Your task to perform on an android device: manage bookmarks in the chrome app Image 0: 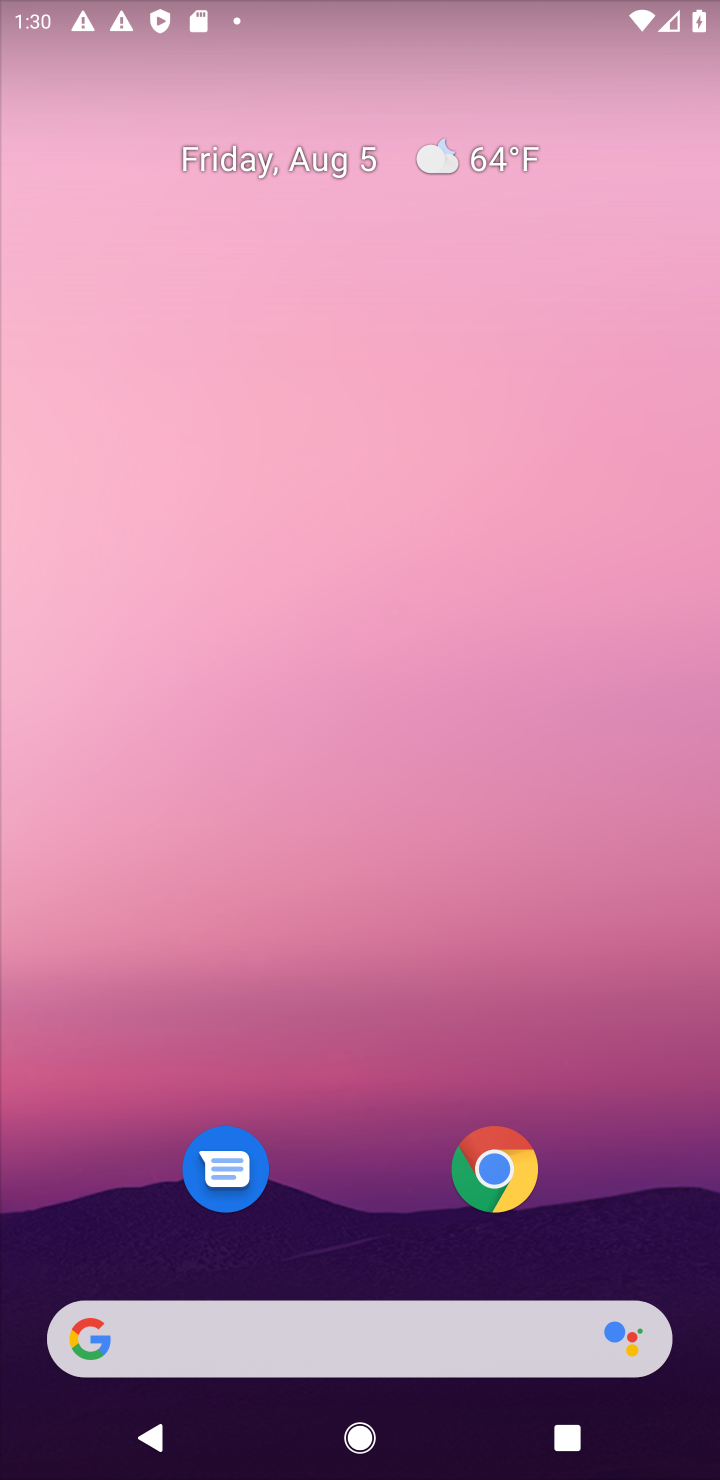
Step 0: click (518, 1191)
Your task to perform on an android device: manage bookmarks in the chrome app Image 1: 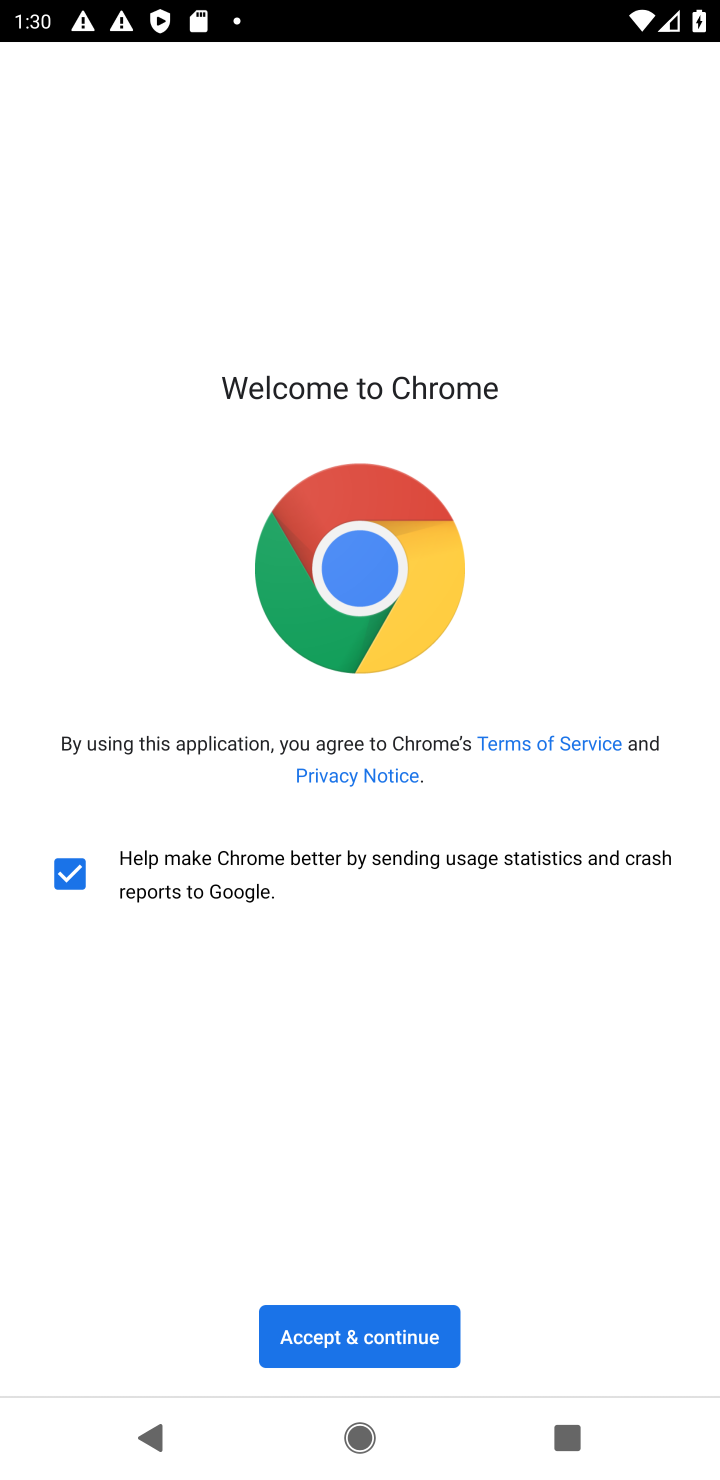
Step 1: click (370, 1323)
Your task to perform on an android device: manage bookmarks in the chrome app Image 2: 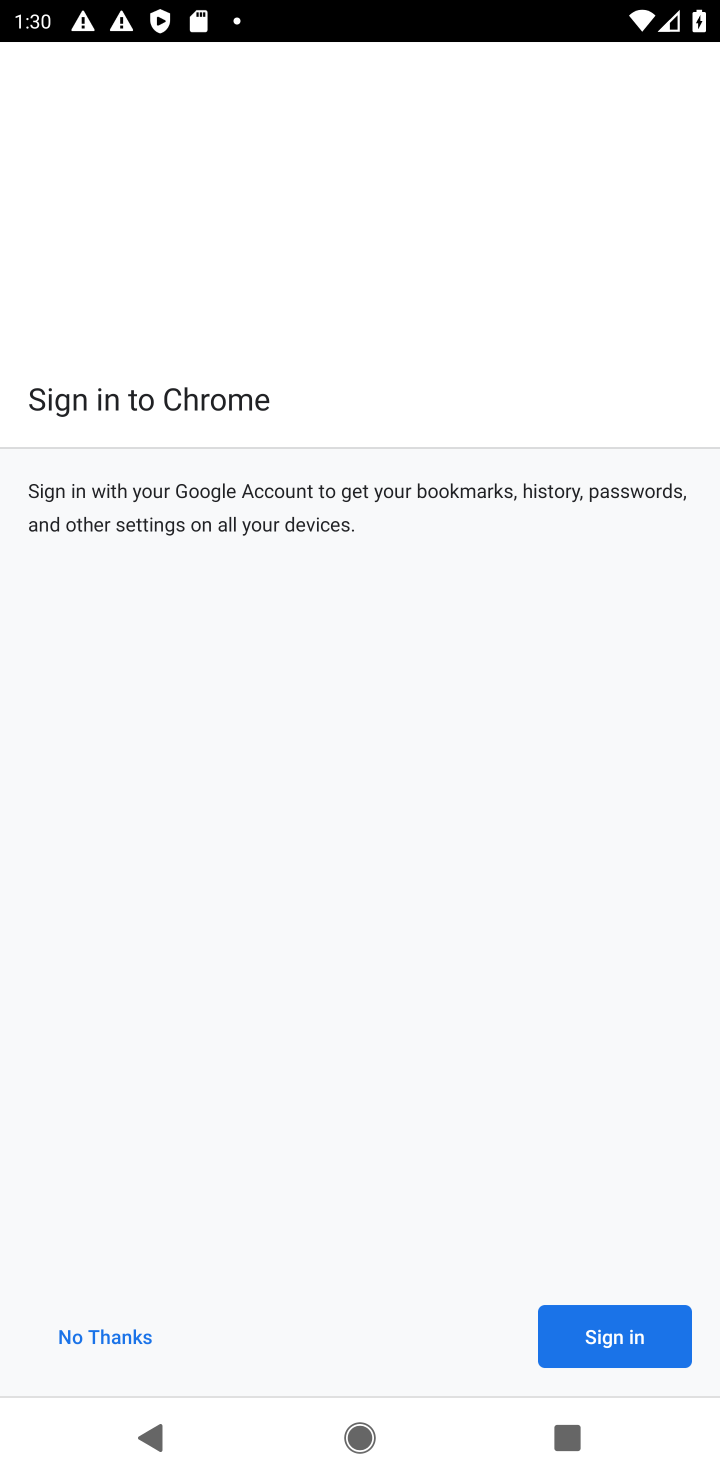
Step 2: click (633, 1300)
Your task to perform on an android device: manage bookmarks in the chrome app Image 3: 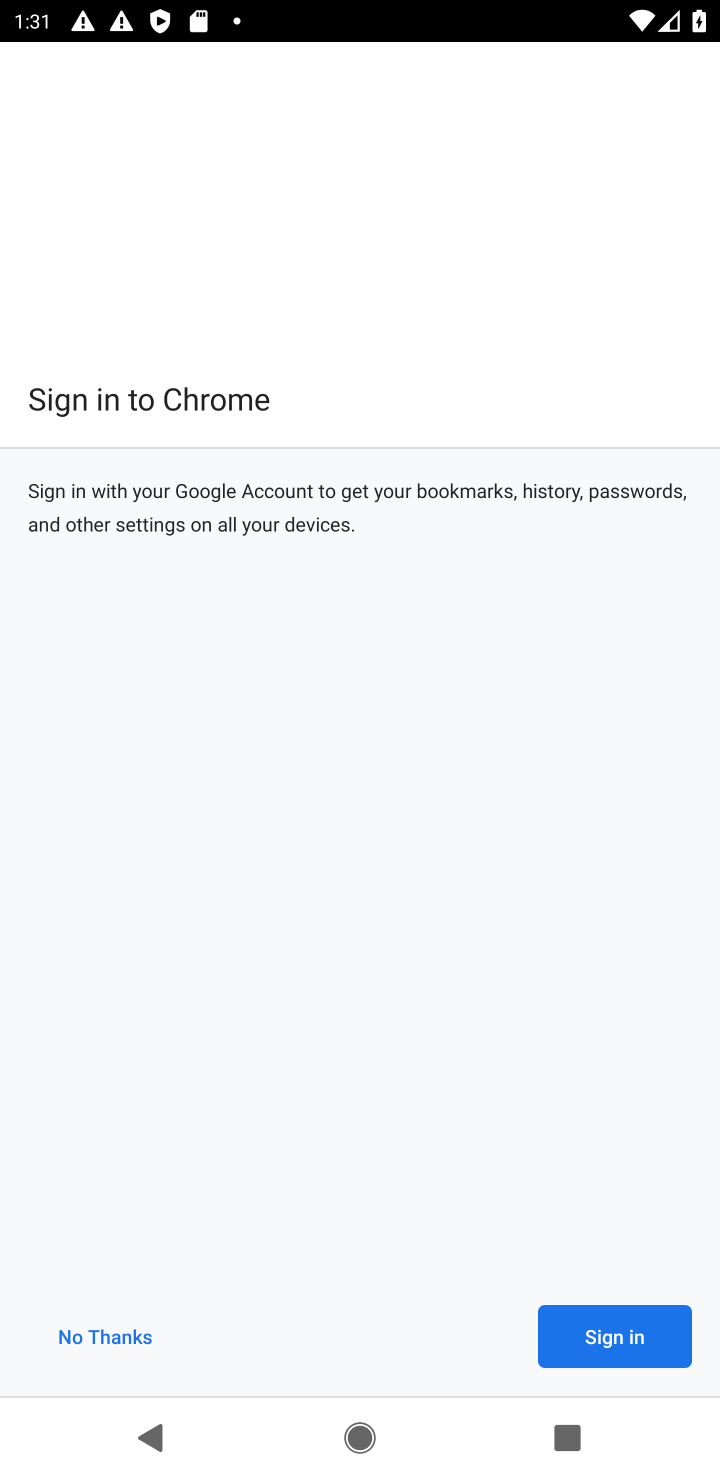
Step 3: click (615, 1315)
Your task to perform on an android device: manage bookmarks in the chrome app Image 4: 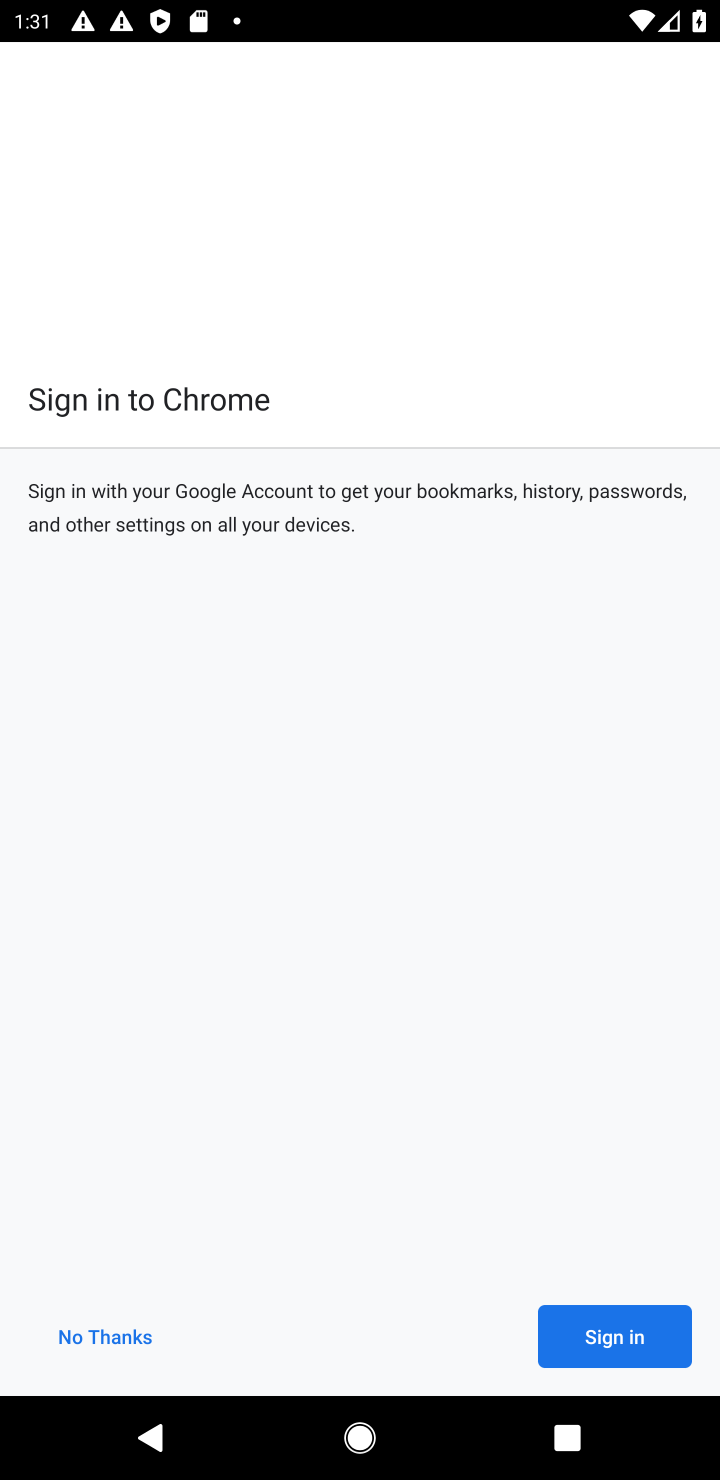
Step 4: click (612, 1317)
Your task to perform on an android device: manage bookmarks in the chrome app Image 5: 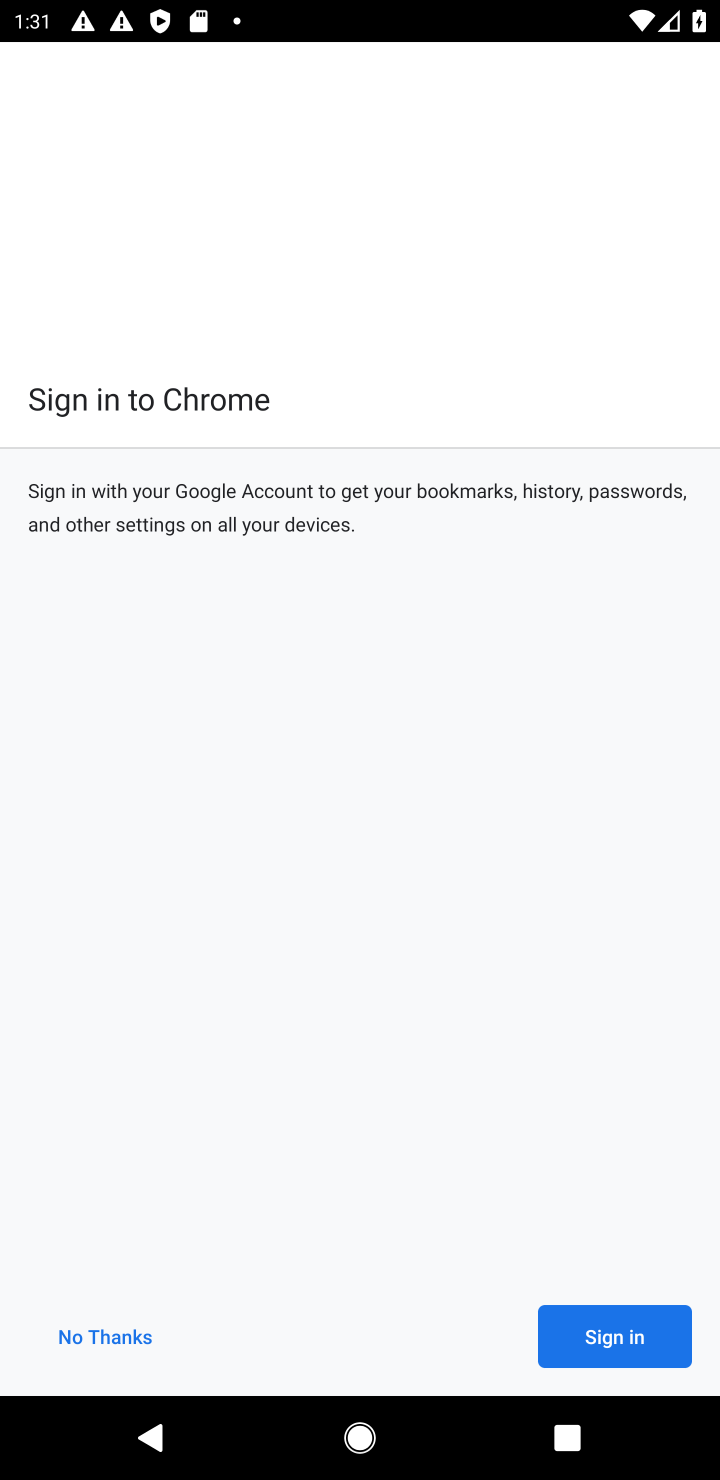
Step 5: click (612, 1317)
Your task to perform on an android device: manage bookmarks in the chrome app Image 6: 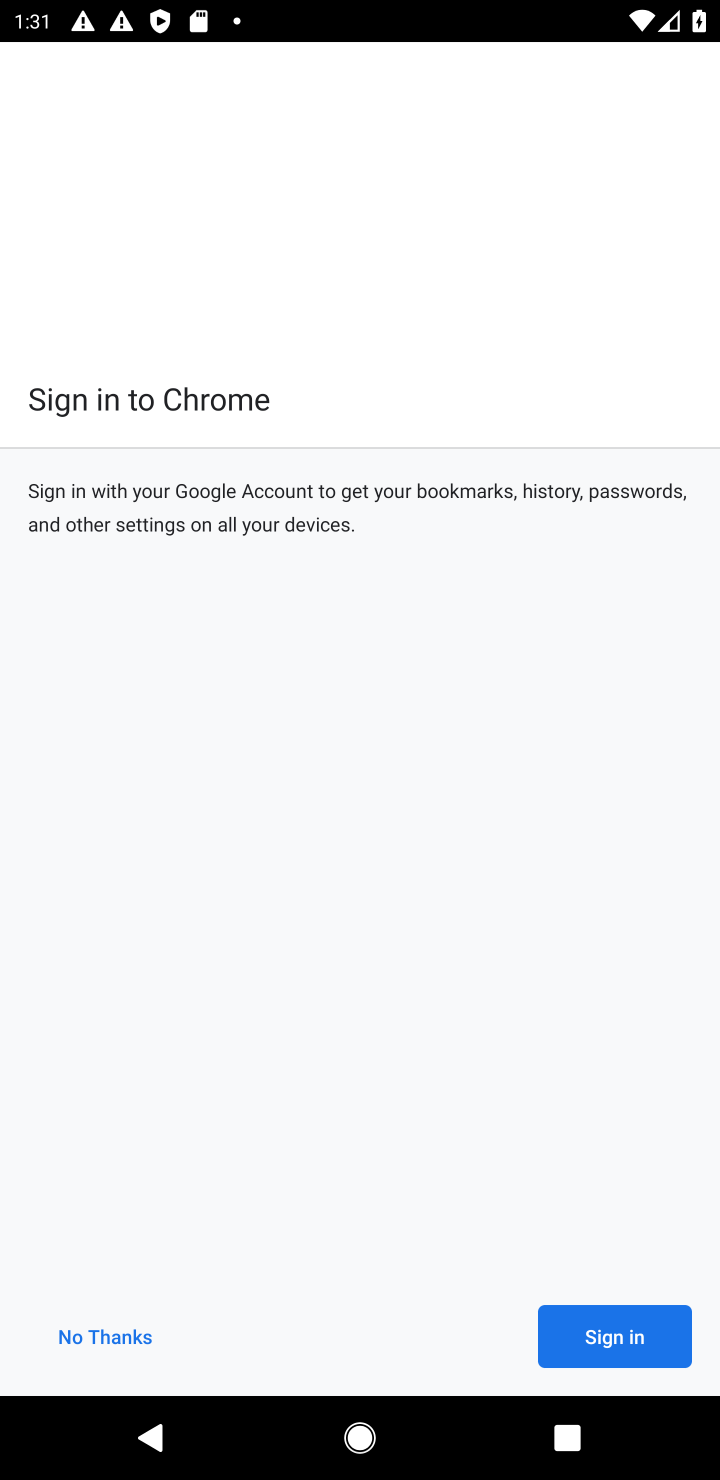
Step 6: click (612, 1317)
Your task to perform on an android device: manage bookmarks in the chrome app Image 7: 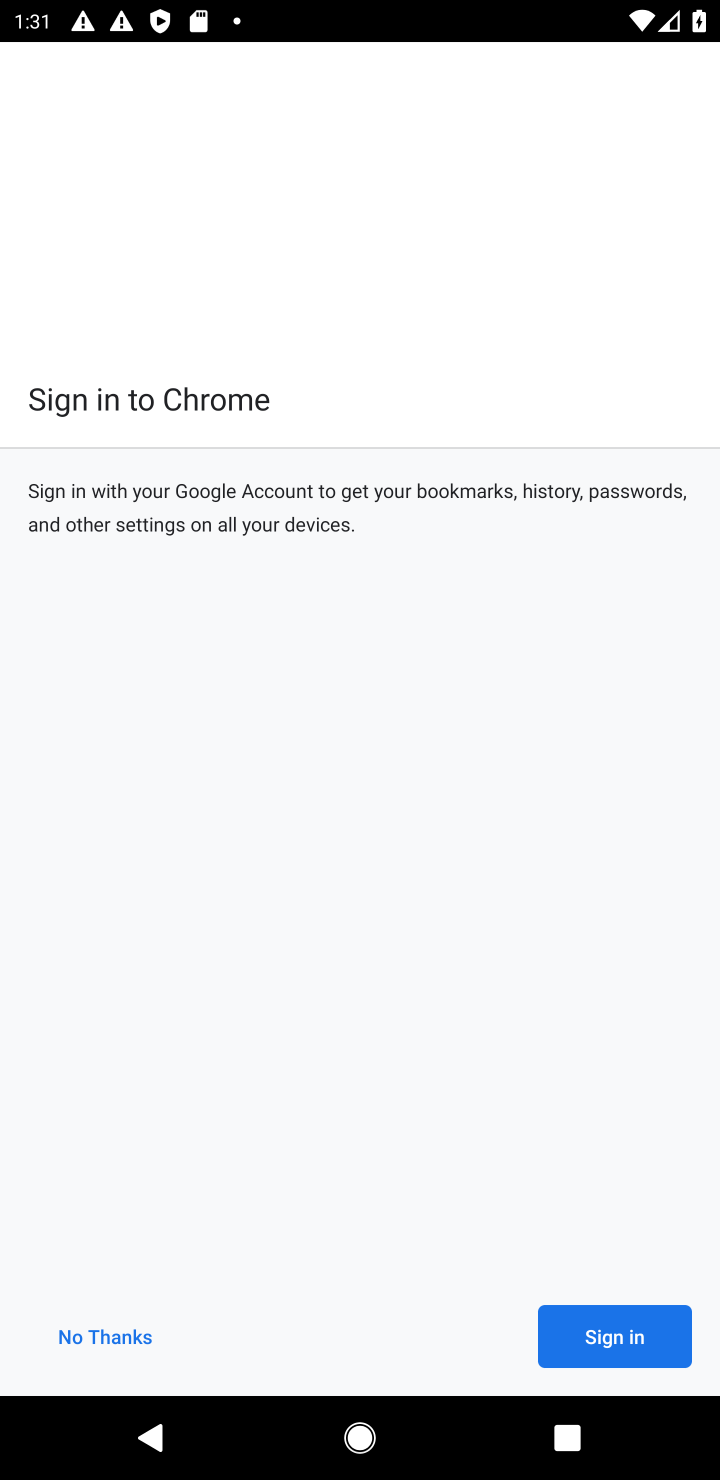
Step 7: press home button
Your task to perform on an android device: manage bookmarks in the chrome app Image 8: 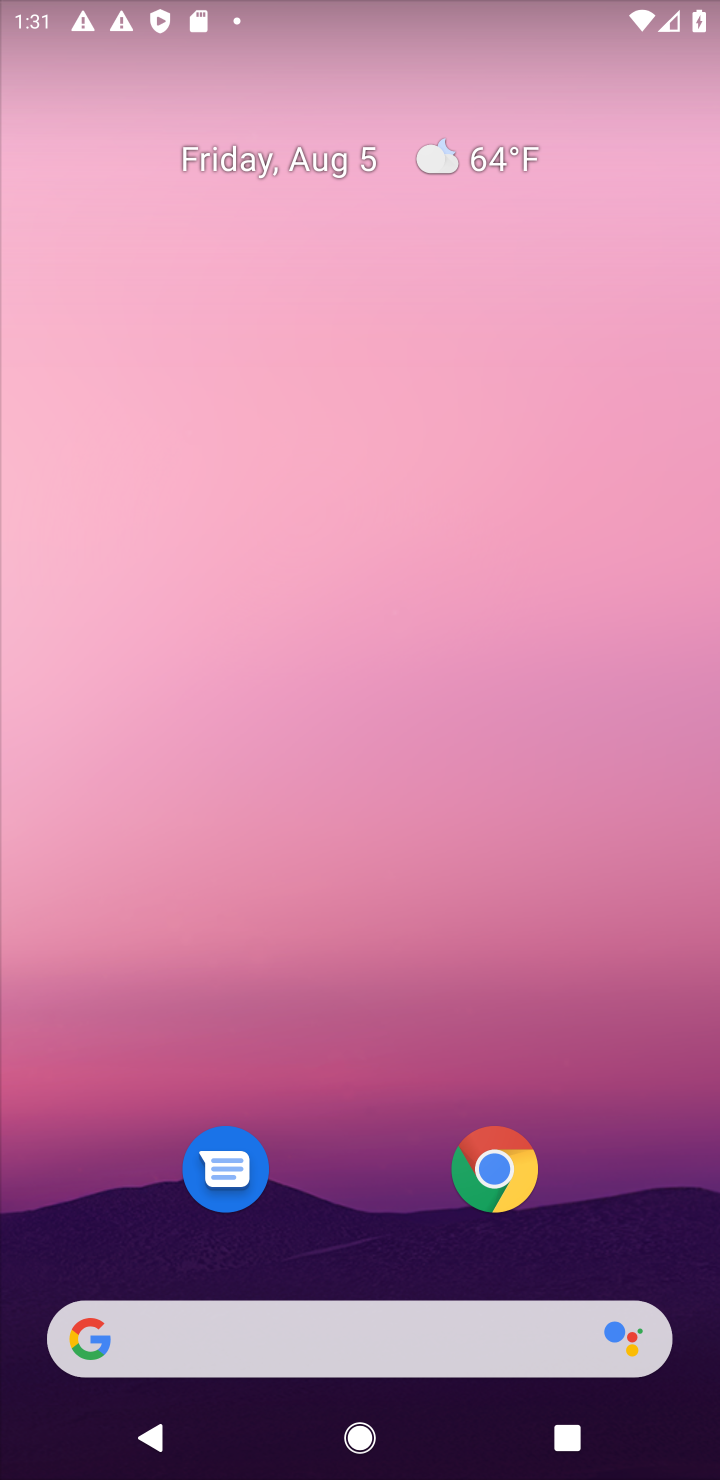
Step 8: click (433, 1178)
Your task to perform on an android device: manage bookmarks in the chrome app Image 9: 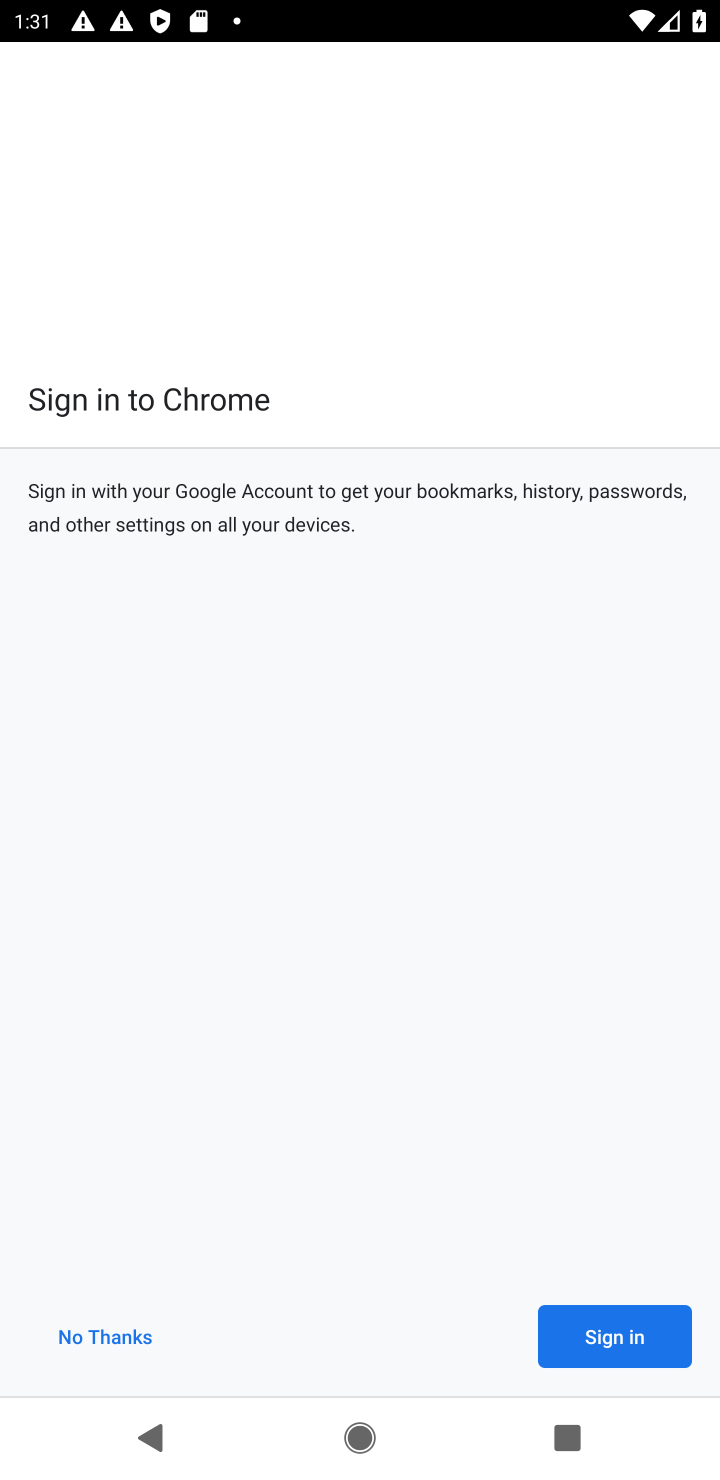
Step 9: click (670, 1328)
Your task to perform on an android device: manage bookmarks in the chrome app Image 10: 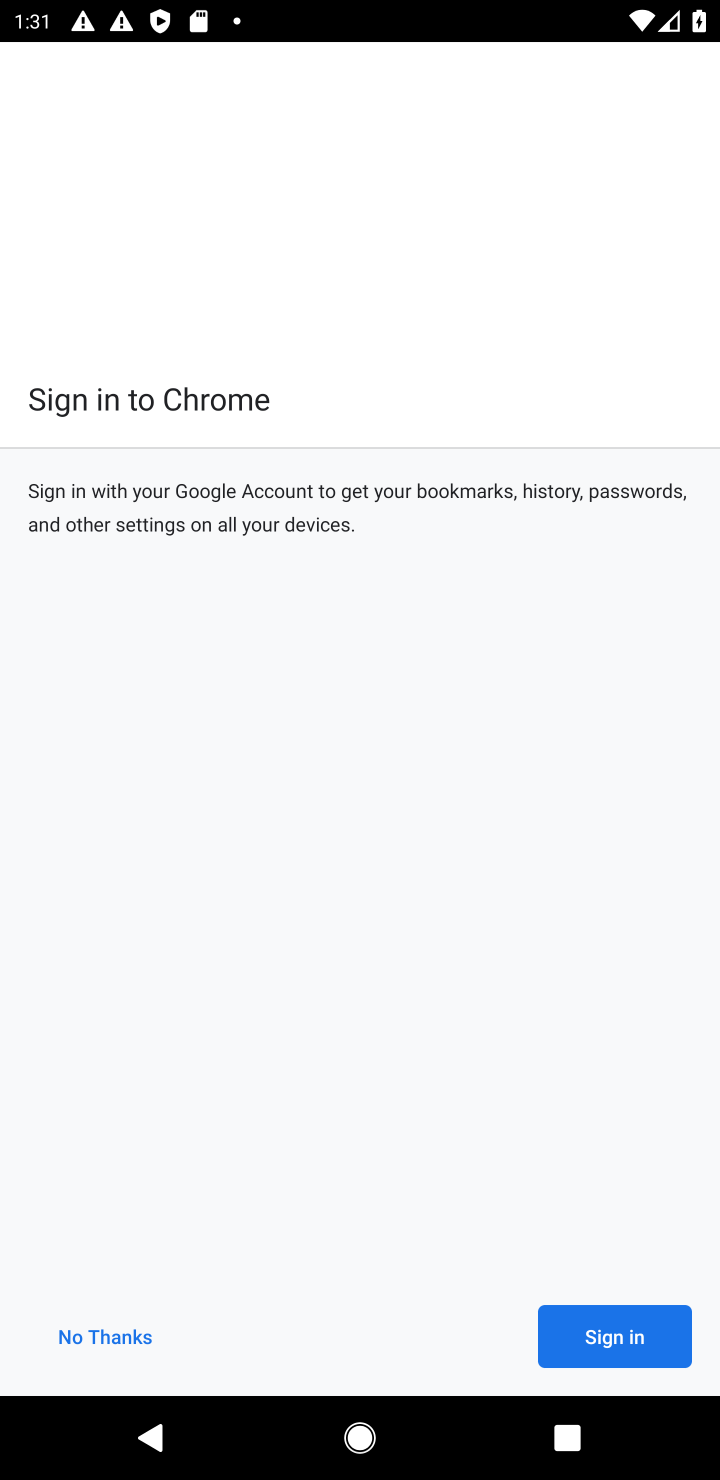
Step 10: click (674, 1335)
Your task to perform on an android device: manage bookmarks in the chrome app Image 11: 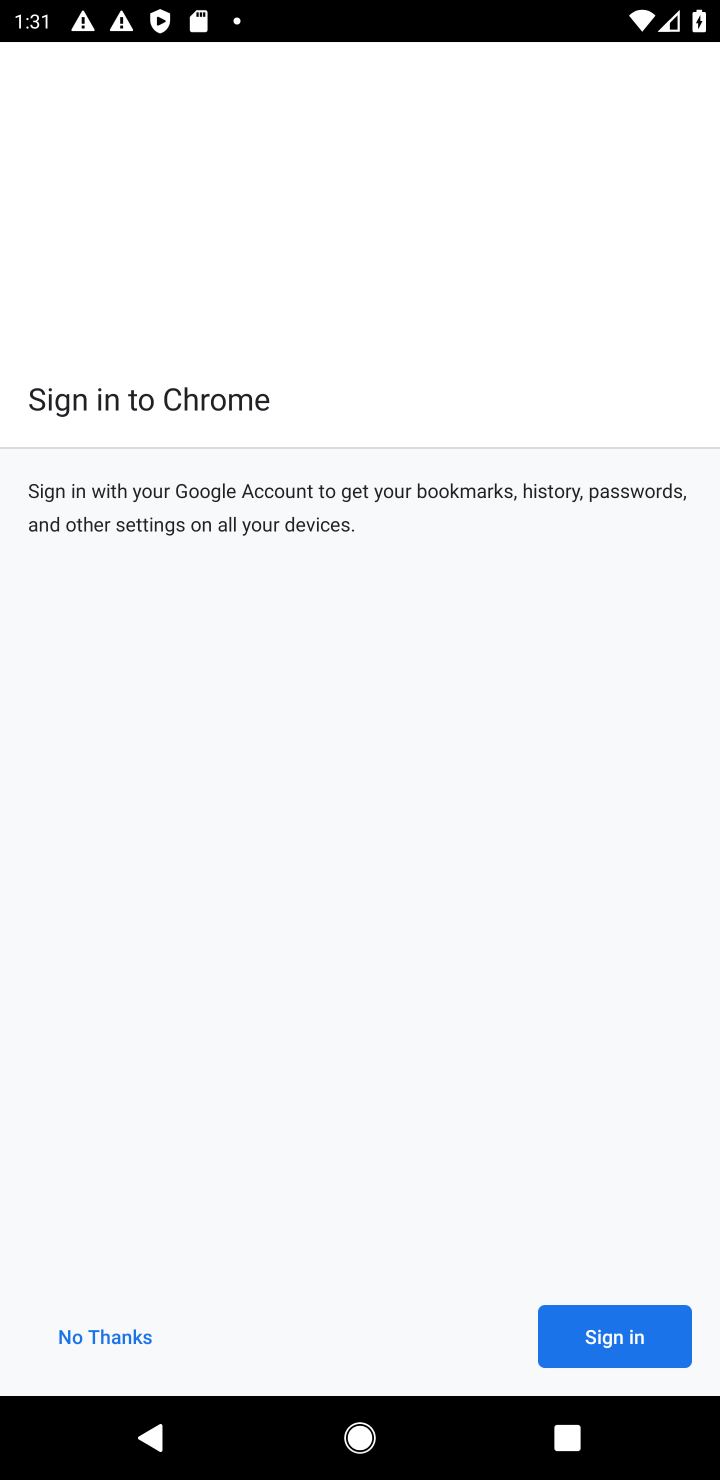
Step 11: task complete